Your task to perform on an android device: move an email to a new category in the gmail app Image 0: 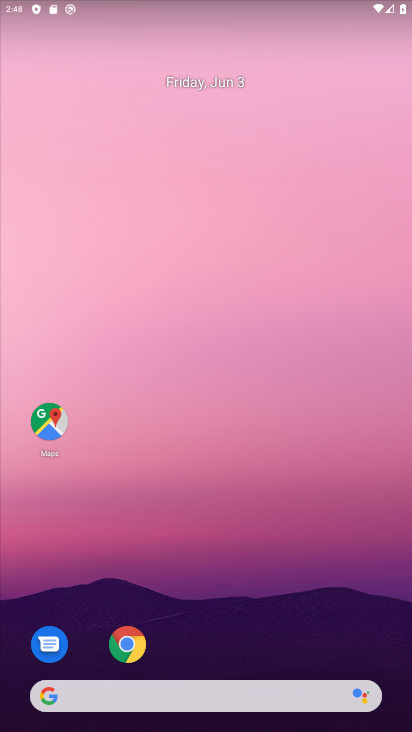
Step 0: press home button
Your task to perform on an android device: move an email to a new category in the gmail app Image 1: 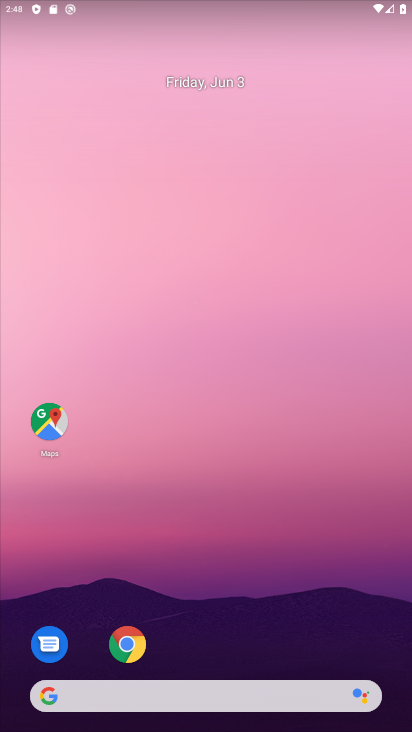
Step 1: drag from (301, 588) to (398, 47)
Your task to perform on an android device: move an email to a new category in the gmail app Image 2: 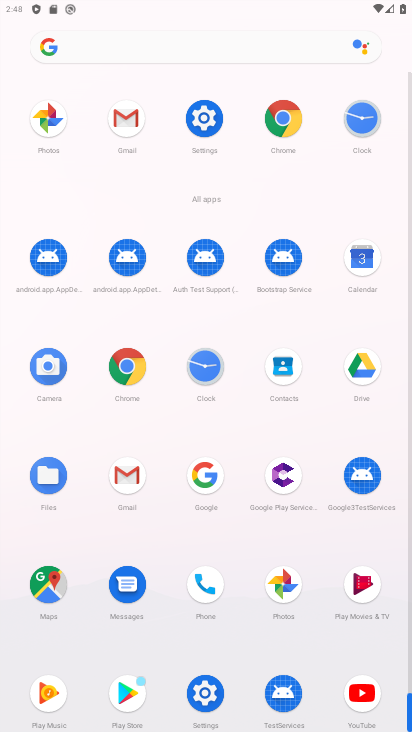
Step 2: click (113, 472)
Your task to perform on an android device: move an email to a new category in the gmail app Image 3: 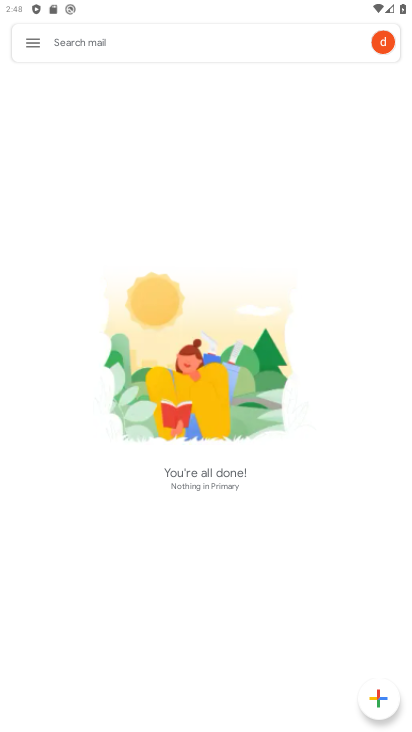
Step 3: click (32, 49)
Your task to perform on an android device: move an email to a new category in the gmail app Image 4: 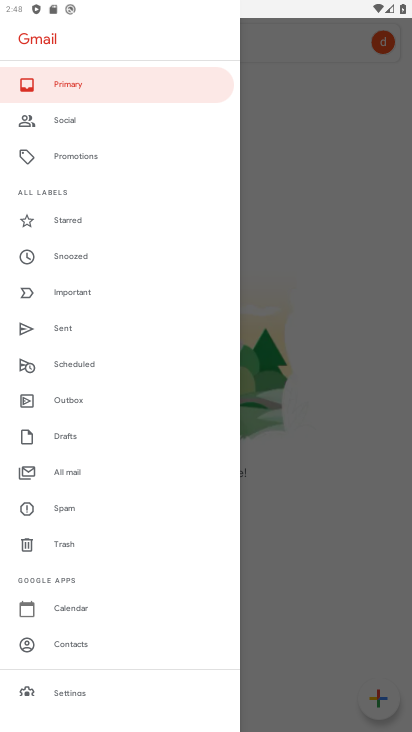
Step 4: task complete